Your task to perform on an android device: change your default location settings in chrome Image 0: 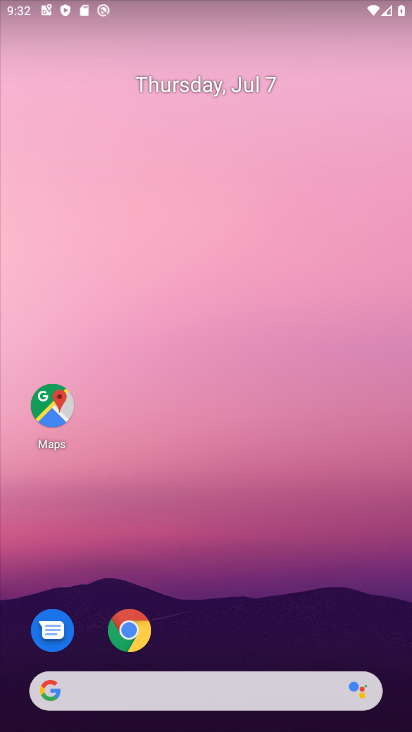
Step 0: click (136, 636)
Your task to perform on an android device: change your default location settings in chrome Image 1: 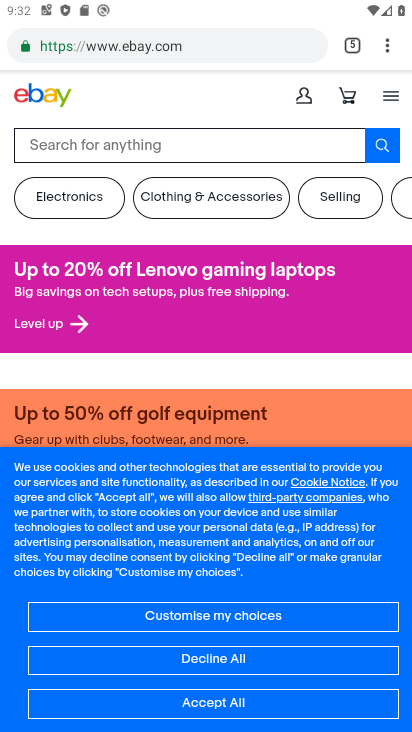
Step 1: click (391, 45)
Your task to perform on an android device: change your default location settings in chrome Image 2: 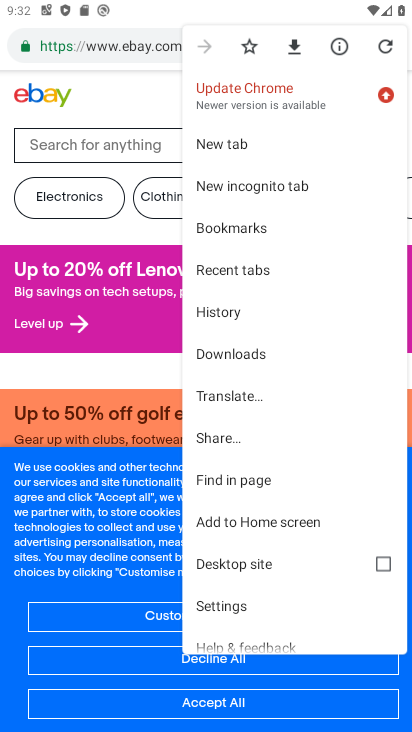
Step 2: click (248, 597)
Your task to perform on an android device: change your default location settings in chrome Image 3: 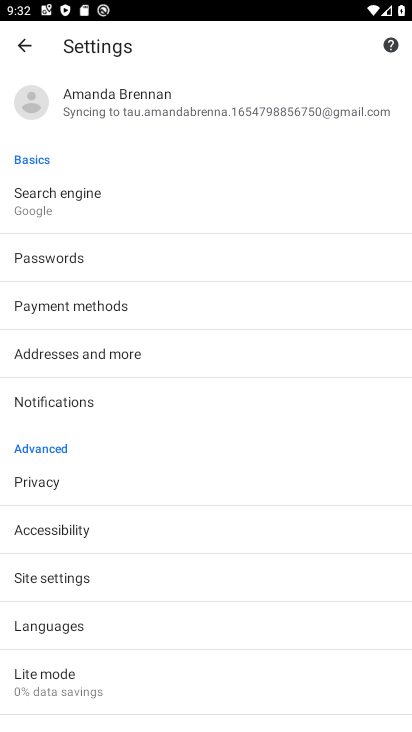
Step 3: click (81, 578)
Your task to perform on an android device: change your default location settings in chrome Image 4: 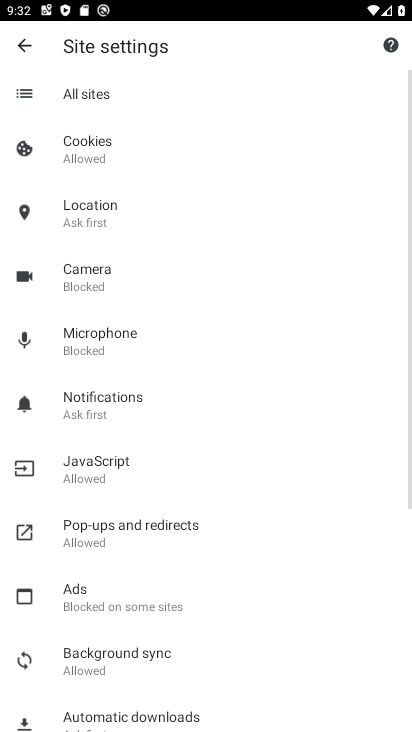
Step 4: click (110, 201)
Your task to perform on an android device: change your default location settings in chrome Image 5: 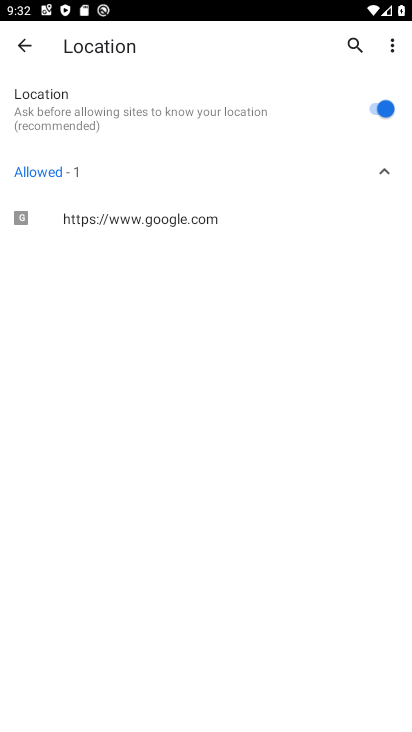
Step 5: click (367, 110)
Your task to perform on an android device: change your default location settings in chrome Image 6: 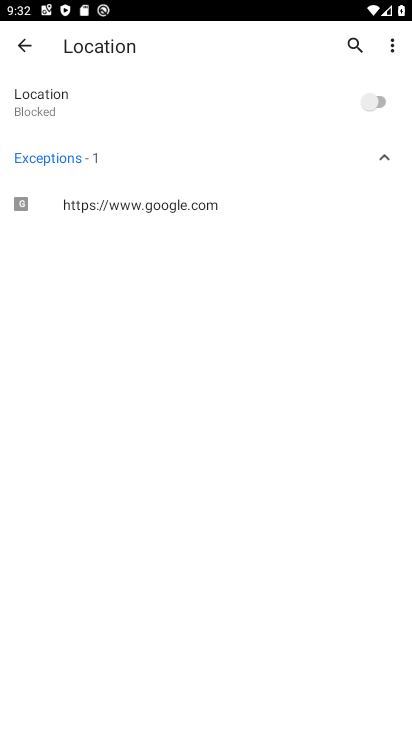
Step 6: task complete